Your task to perform on an android device: Go to accessibility settings Image 0: 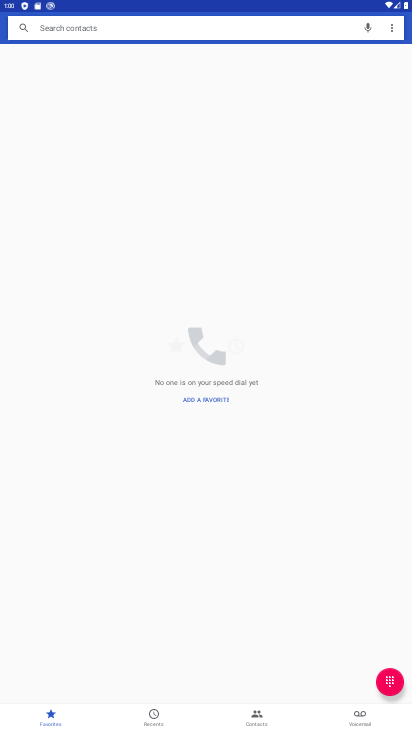
Step 0: press home button
Your task to perform on an android device: Go to accessibility settings Image 1: 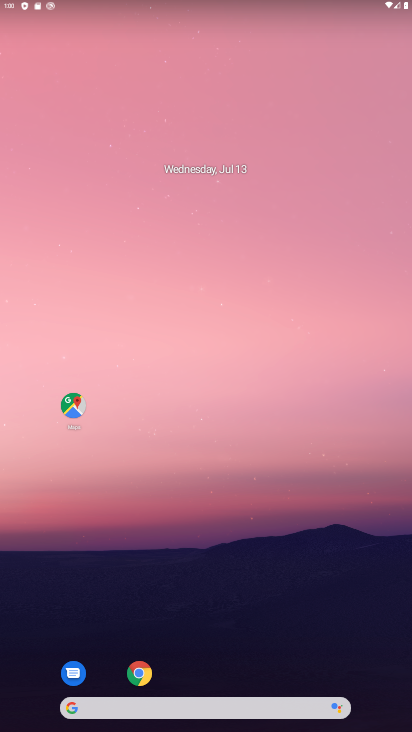
Step 1: click (154, 667)
Your task to perform on an android device: Go to accessibility settings Image 2: 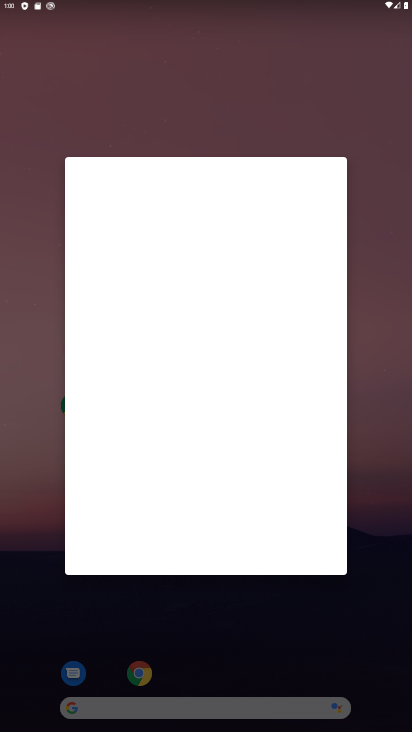
Step 2: press home button
Your task to perform on an android device: Go to accessibility settings Image 3: 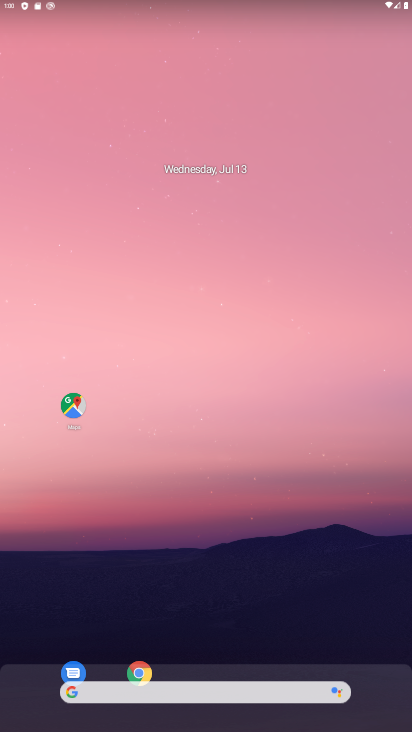
Step 3: drag from (213, 686) to (299, 398)
Your task to perform on an android device: Go to accessibility settings Image 4: 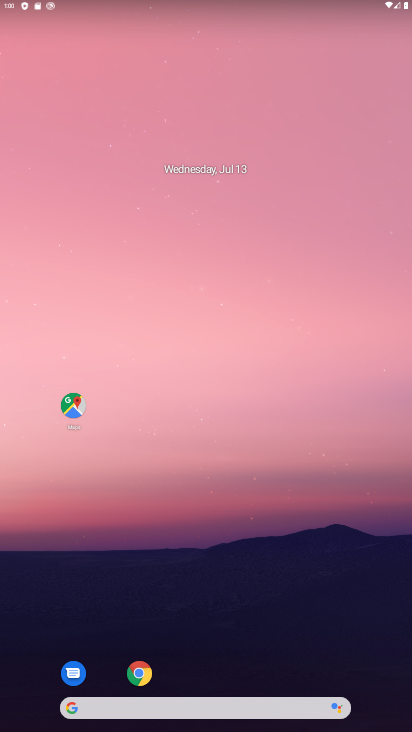
Step 4: drag from (203, 646) to (202, 74)
Your task to perform on an android device: Go to accessibility settings Image 5: 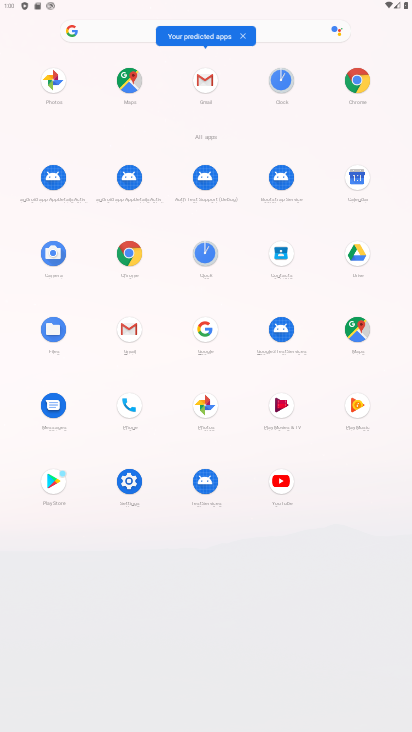
Step 5: click (122, 492)
Your task to perform on an android device: Go to accessibility settings Image 6: 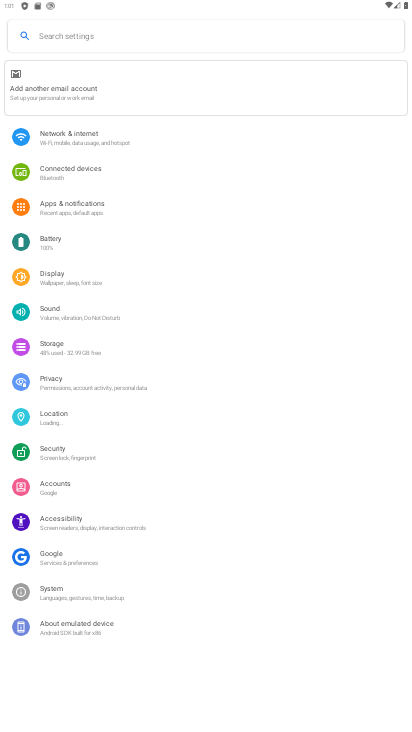
Step 6: click (80, 526)
Your task to perform on an android device: Go to accessibility settings Image 7: 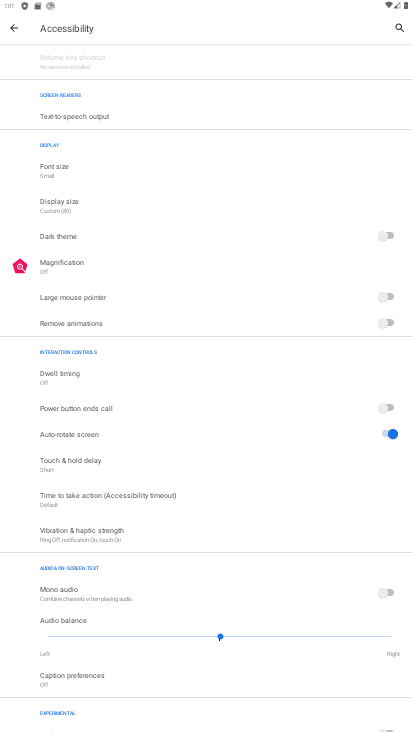
Step 7: task complete